Your task to perform on an android device: Open battery settings Image 0: 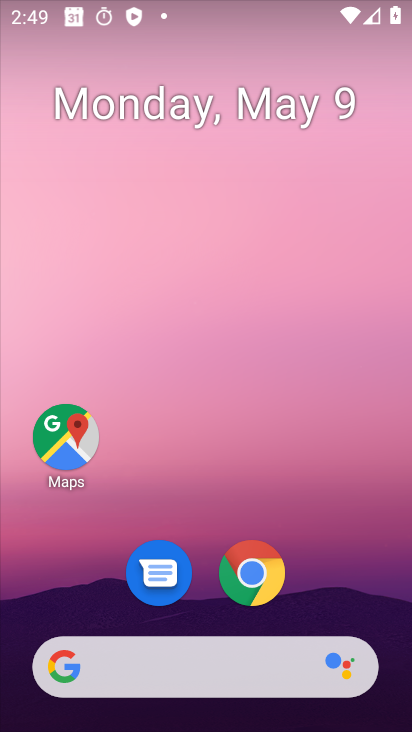
Step 0: drag from (380, 658) to (234, 214)
Your task to perform on an android device: Open battery settings Image 1: 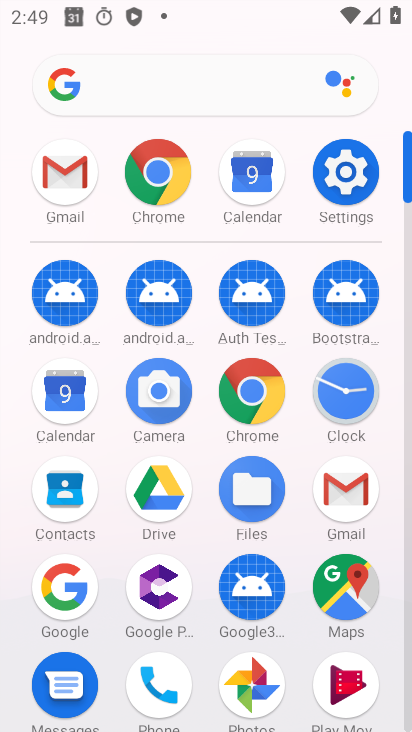
Step 1: click (347, 169)
Your task to perform on an android device: Open battery settings Image 2: 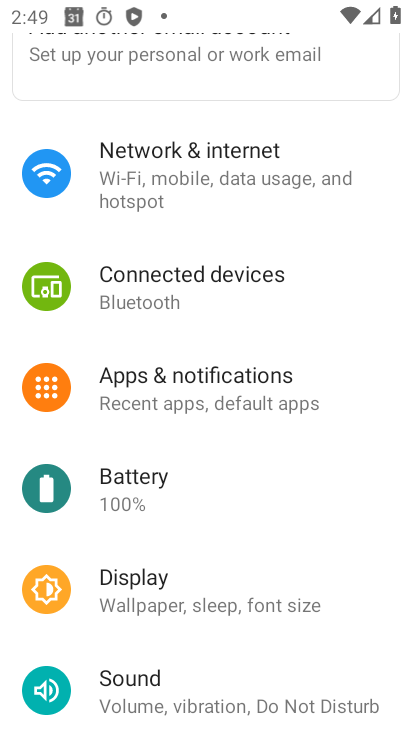
Step 2: click (137, 472)
Your task to perform on an android device: Open battery settings Image 3: 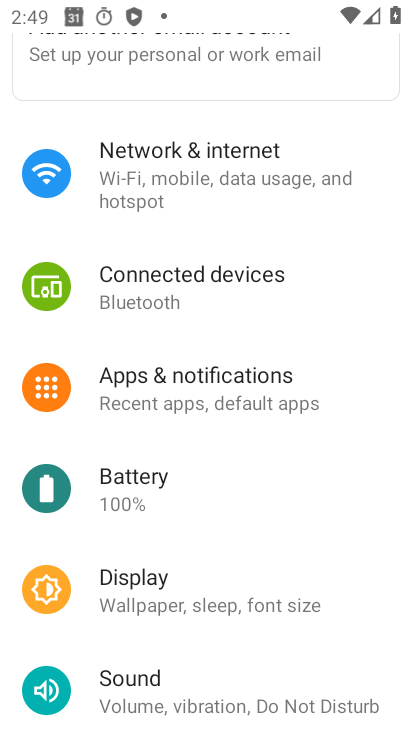
Step 3: click (134, 473)
Your task to perform on an android device: Open battery settings Image 4: 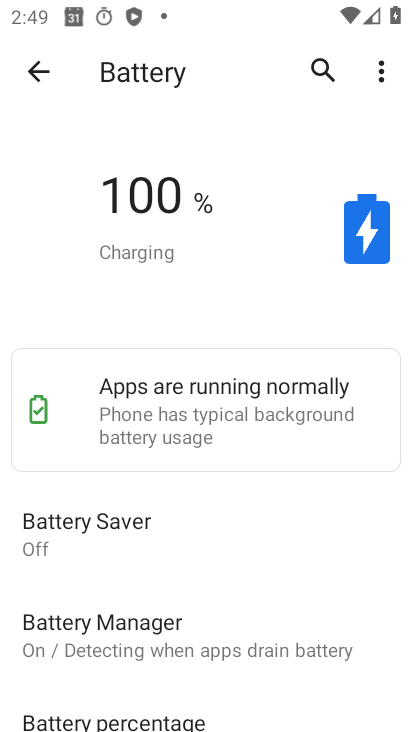
Step 4: task complete